Your task to perform on an android device: remove spam from my inbox in the gmail app Image 0: 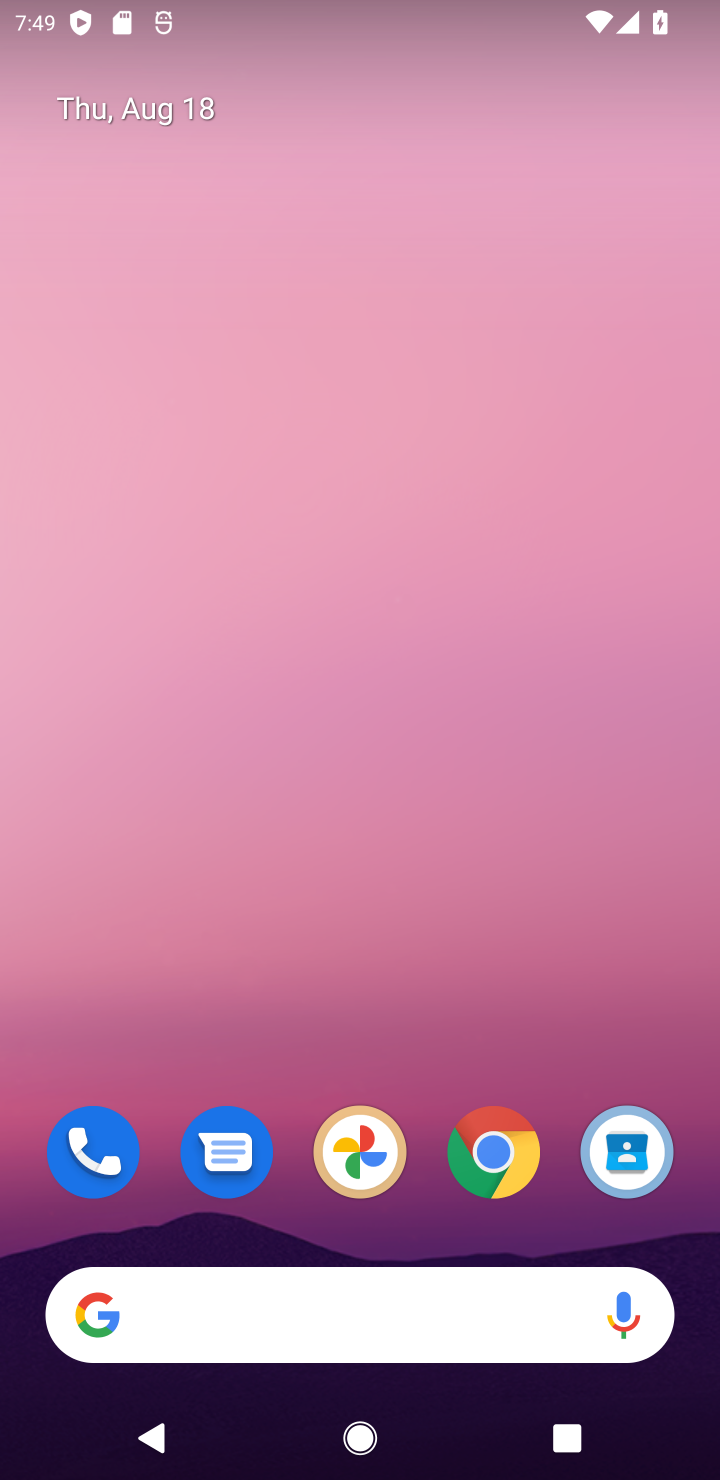
Step 0: press home button
Your task to perform on an android device: remove spam from my inbox in the gmail app Image 1: 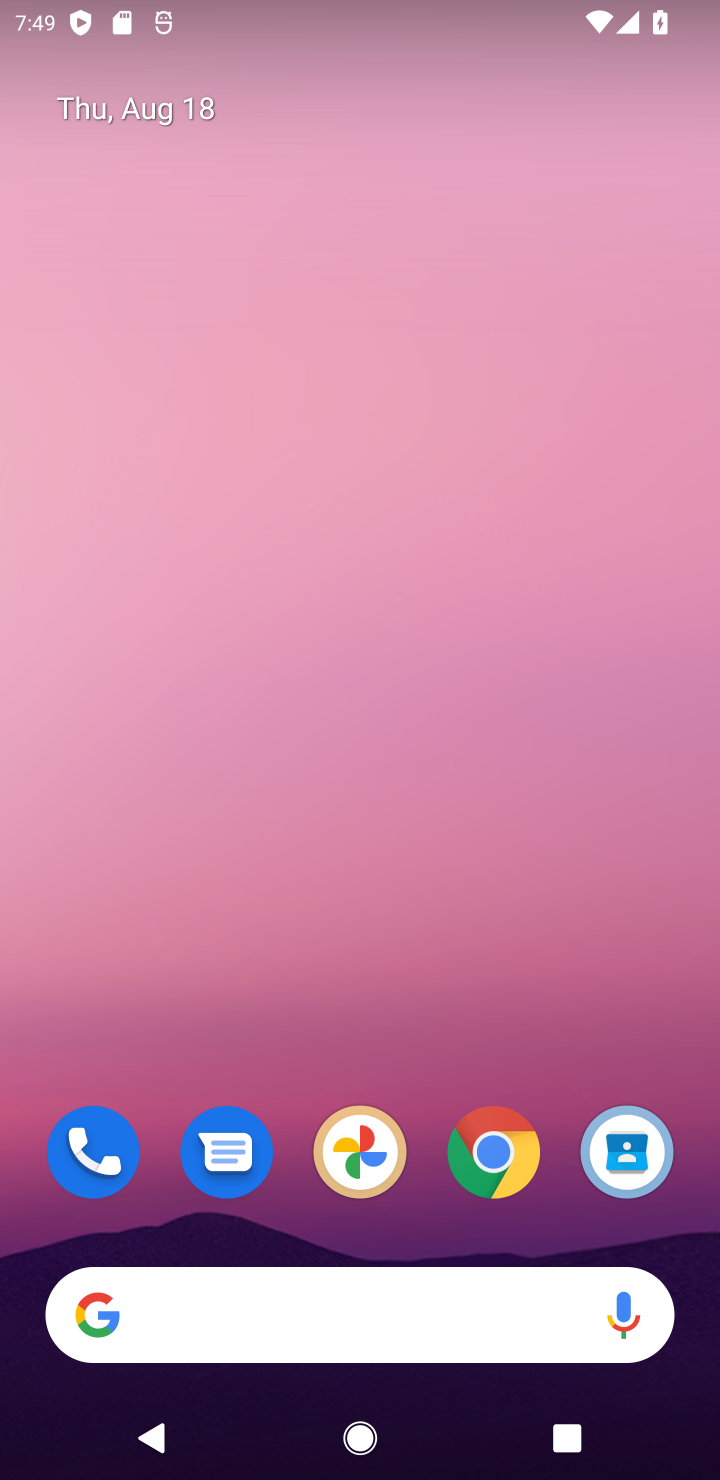
Step 1: drag from (423, 1212) to (322, 181)
Your task to perform on an android device: remove spam from my inbox in the gmail app Image 2: 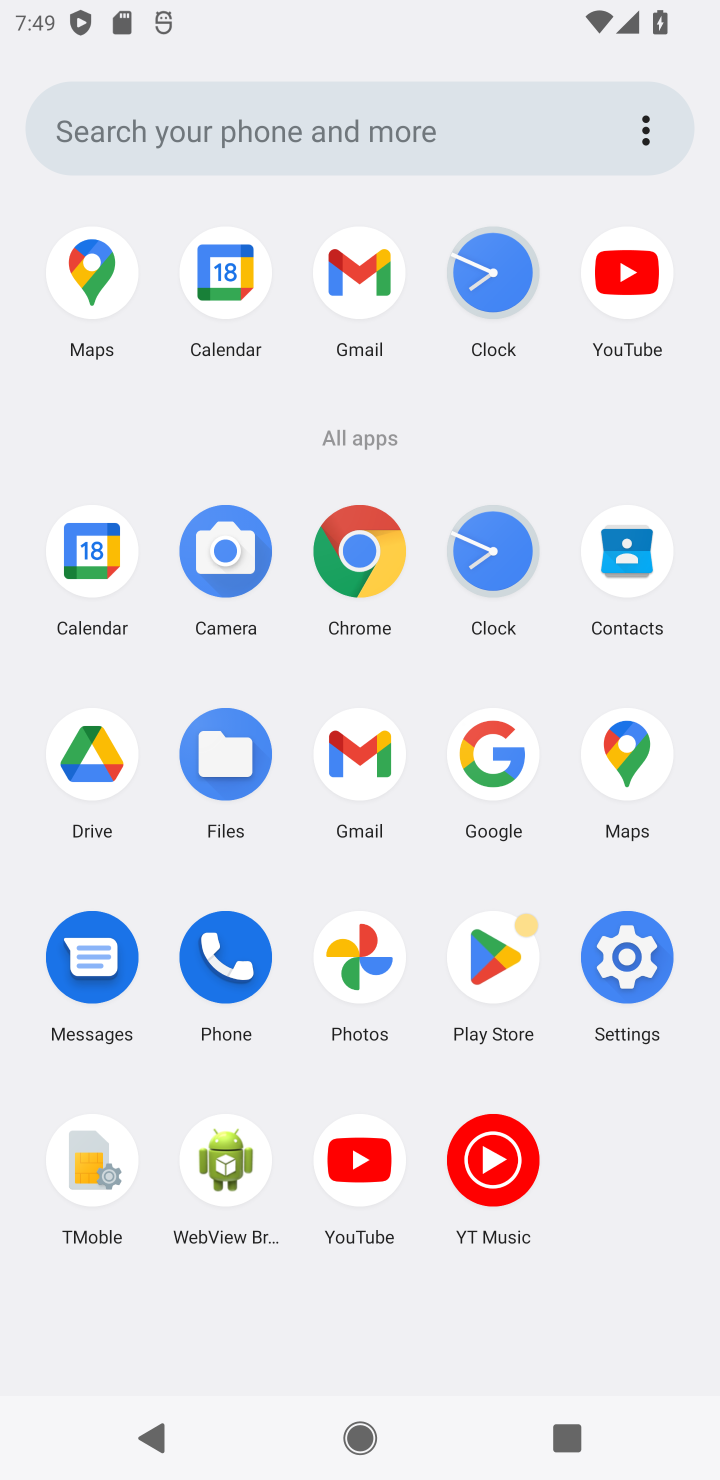
Step 2: click (365, 286)
Your task to perform on an android device: remove spam from my inbox in the gmail app Image 3: 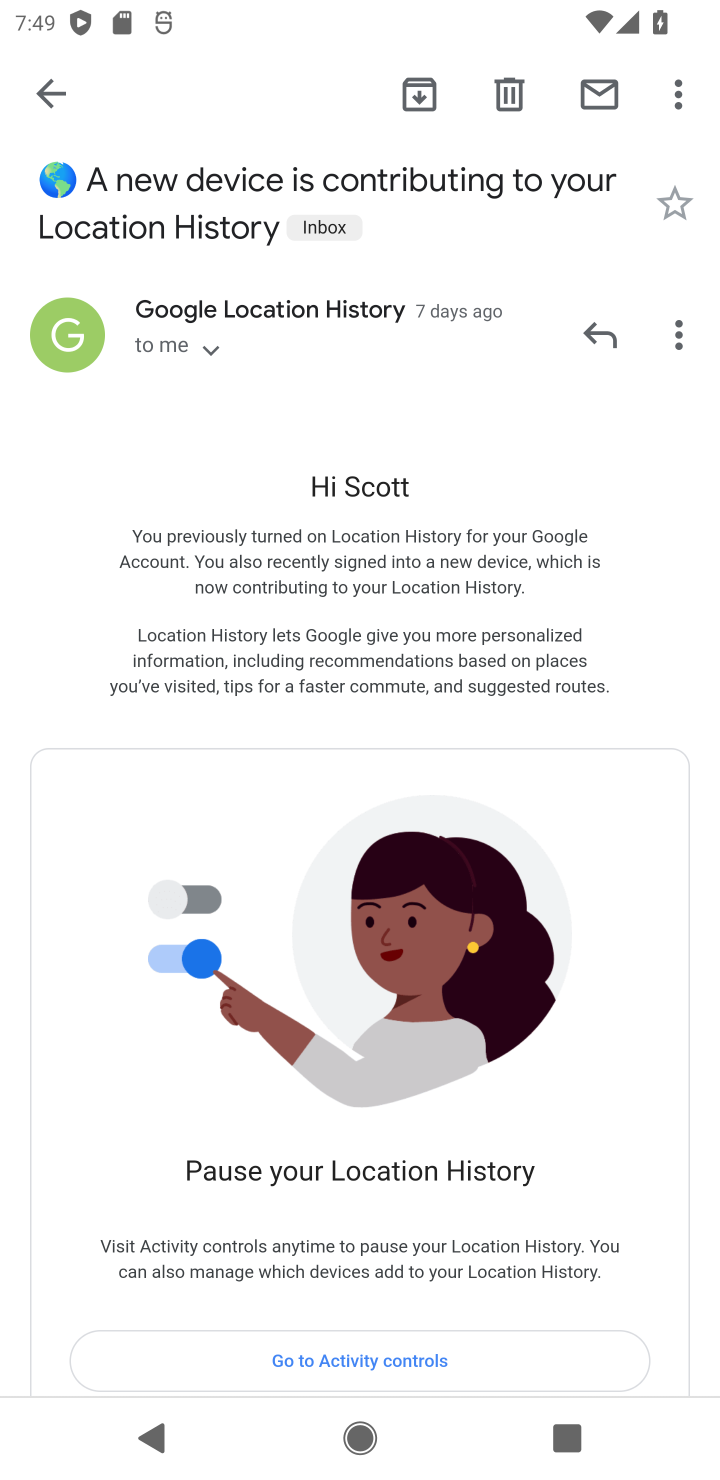
Step 3: click (41, 107)
Your task to perform on an android device: remove spam from my inbox in the gmail app Image 4: 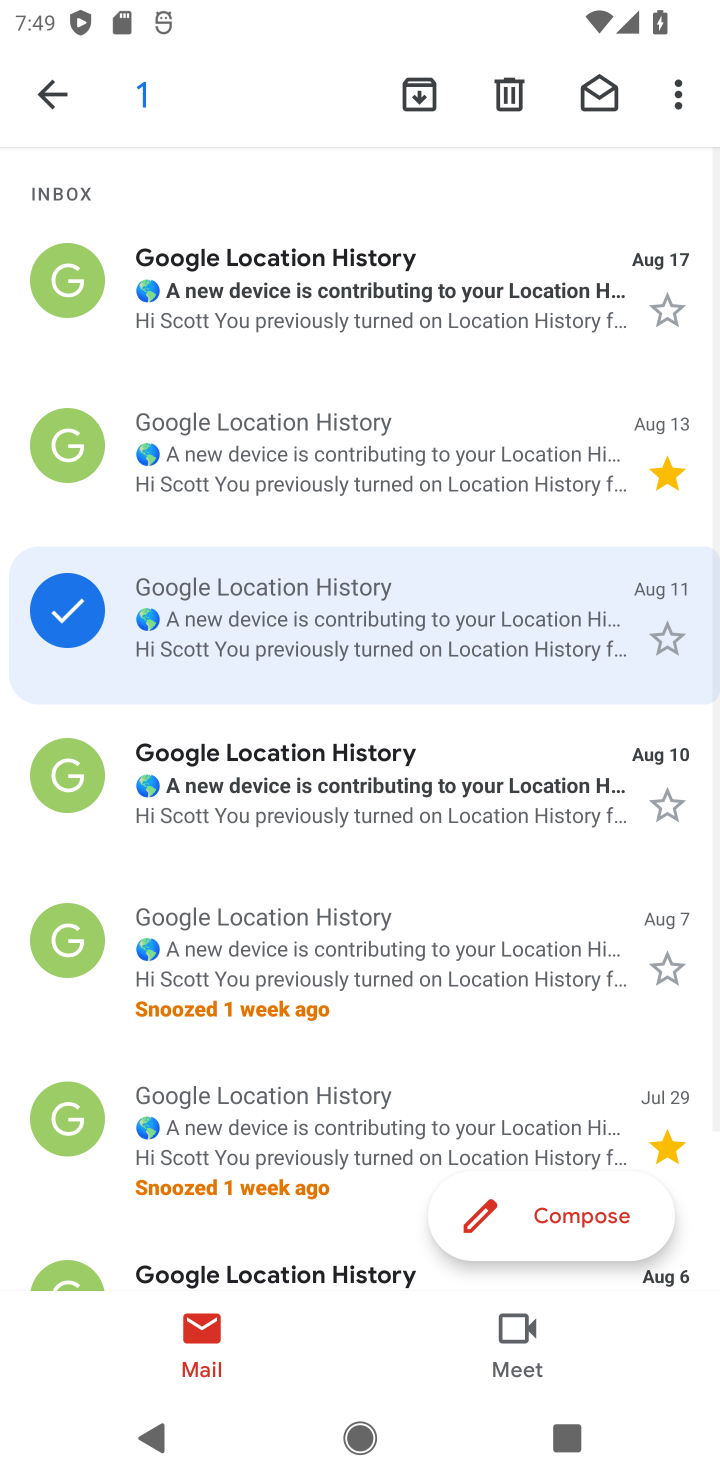
Step 4: click (62, 95)
Your task to perform on an android device: remove spam from my inbox in the gmail app Image 5: 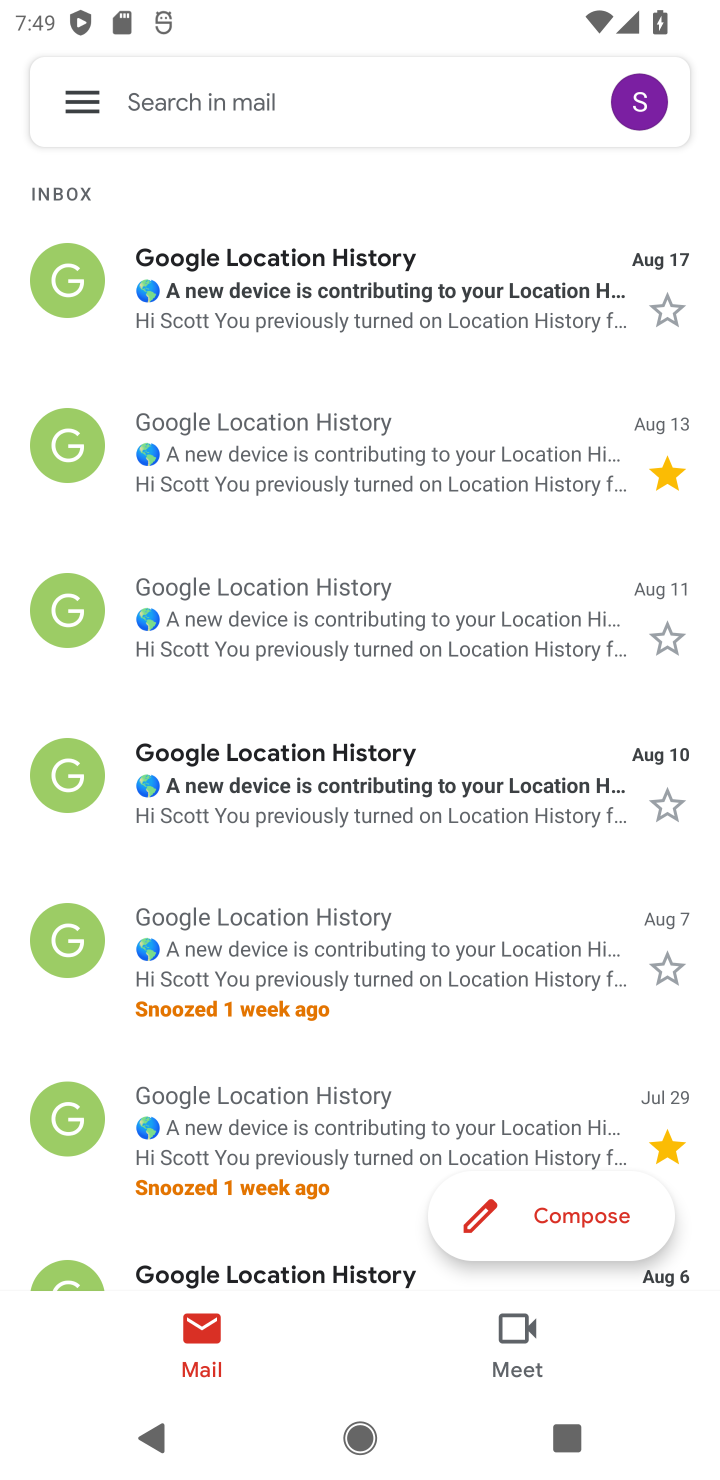
Step 5: click (461, 299)
Your task to perform on an android device: remove spam from my inbox in the gmail app Image 6: 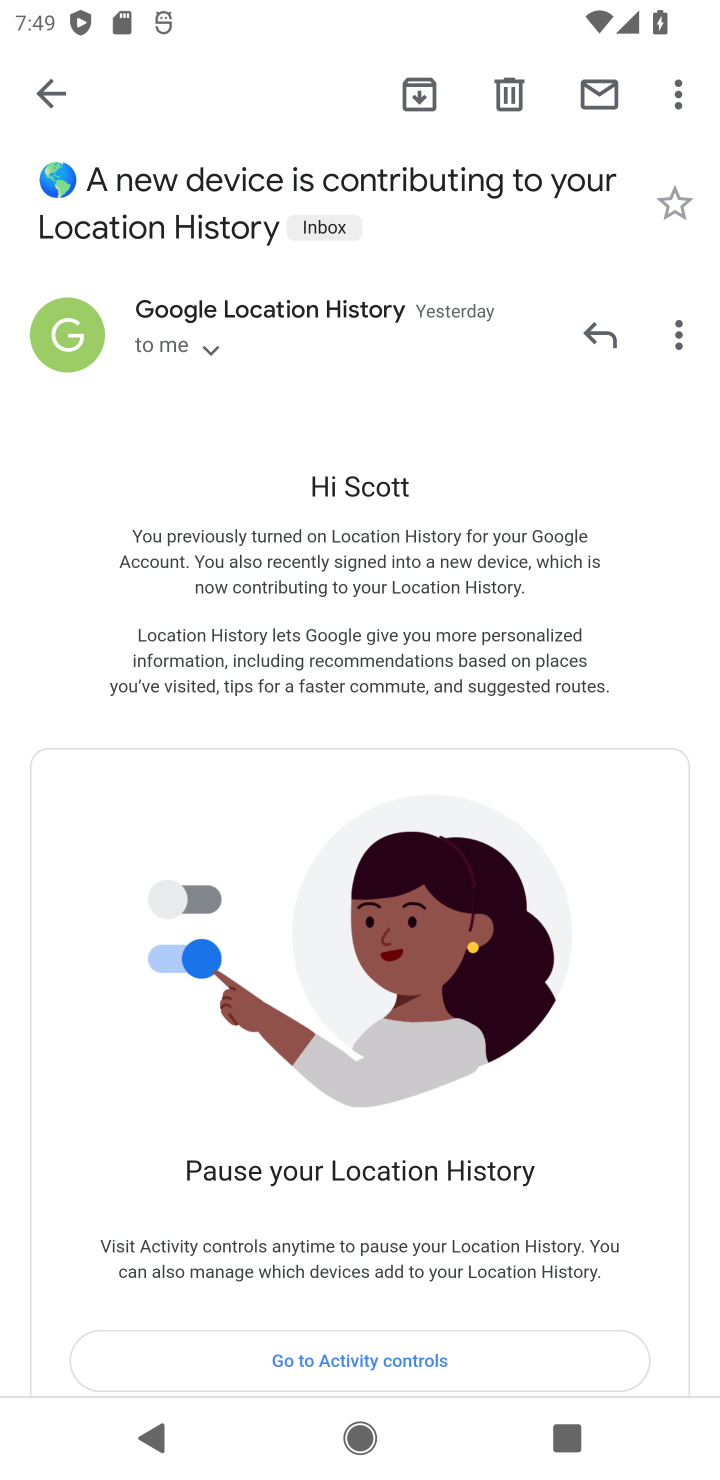
Step 6: click (678, 104)
Your task to perform on an android device: remove spam from my inbox in the gmail app Image 7: 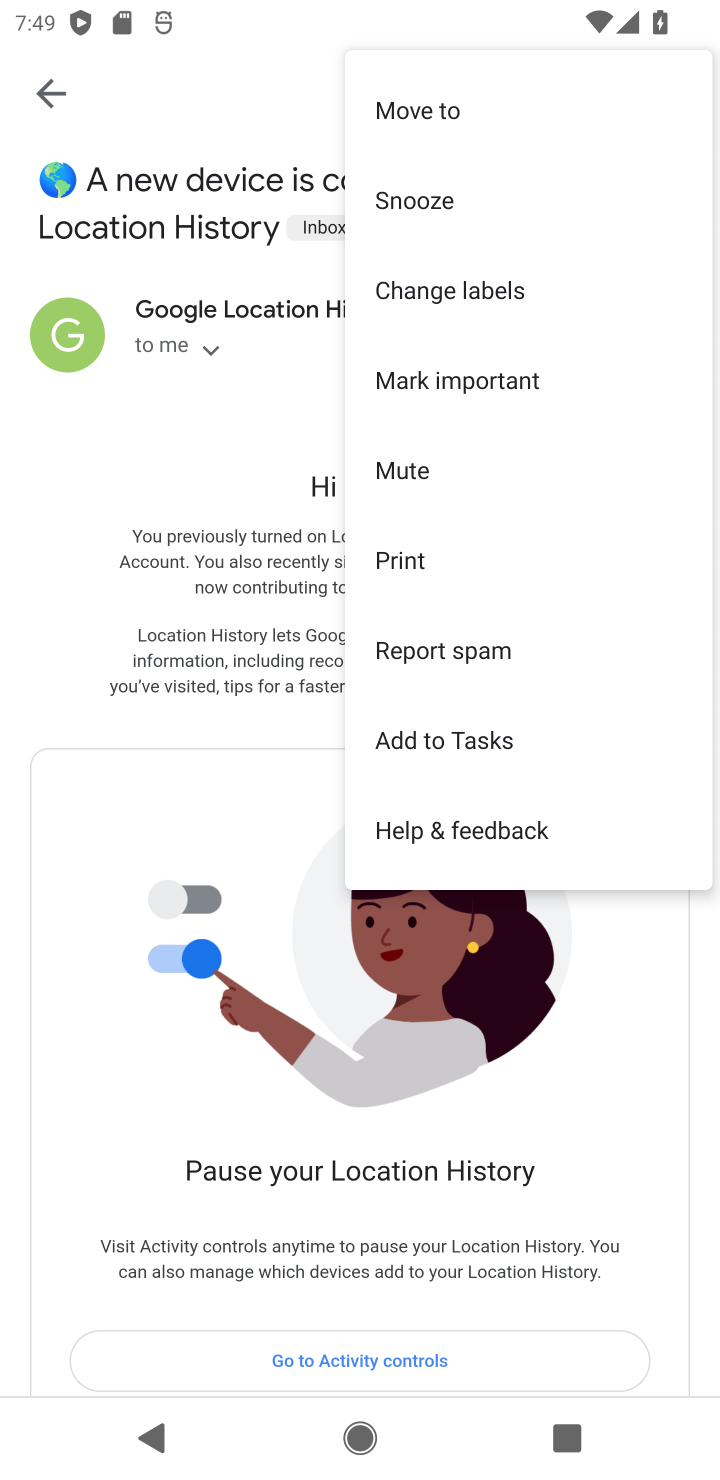
Step 7: click (453, 654)
Your task to perform on an android device: remove spam from my inbox in the gmail app Image 8: 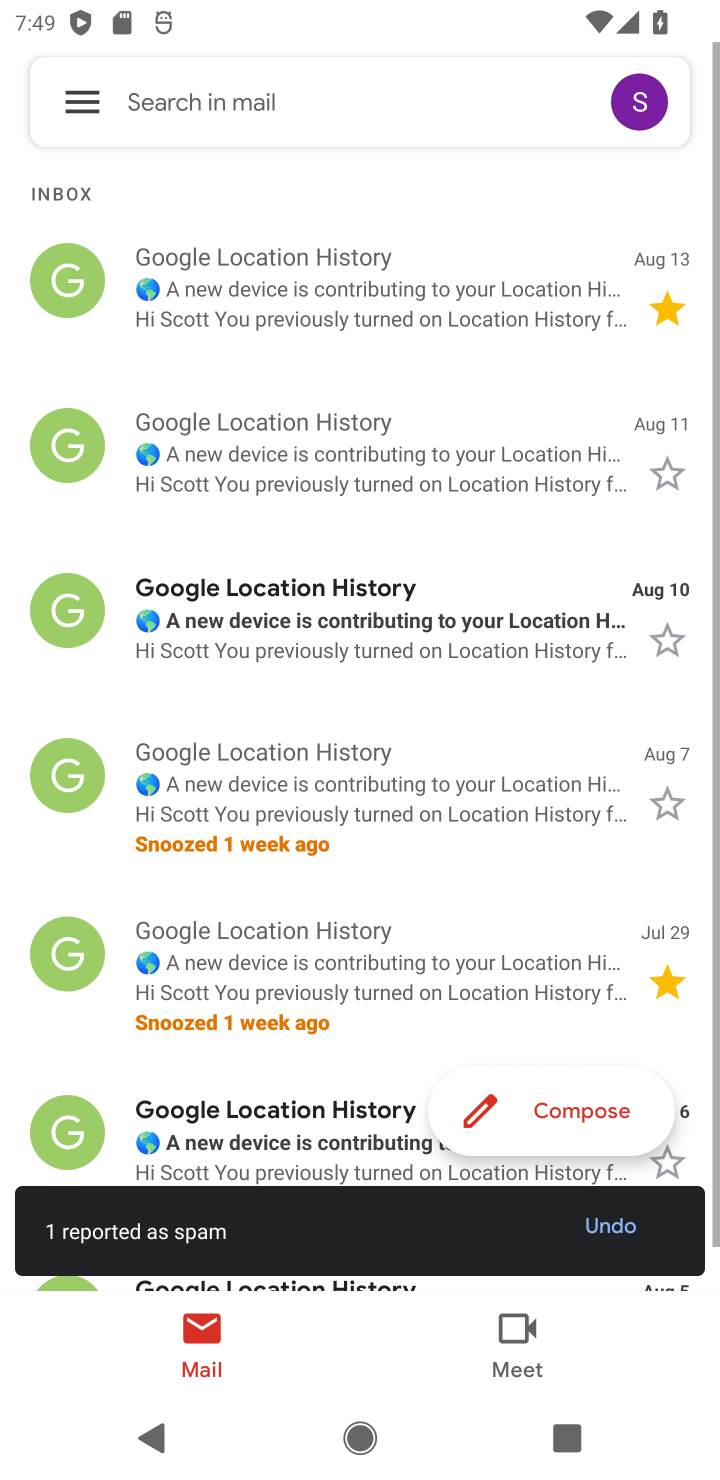
Step 8: task complete